Your task to perform on an android device: check android version Image 0: 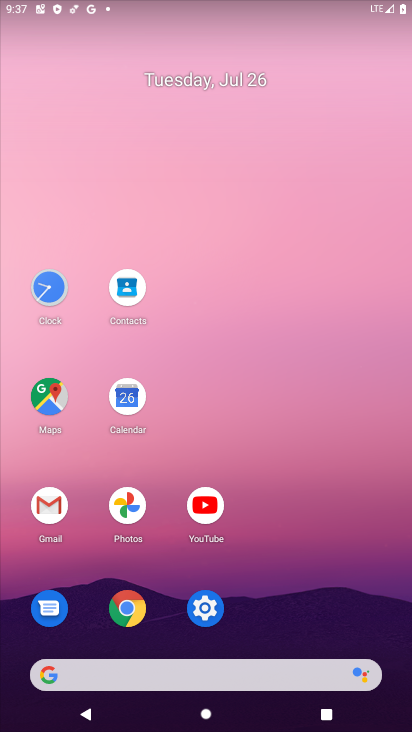
Step 0: click (204, 605)
Your task to perform on an android device: check android version Image 1: 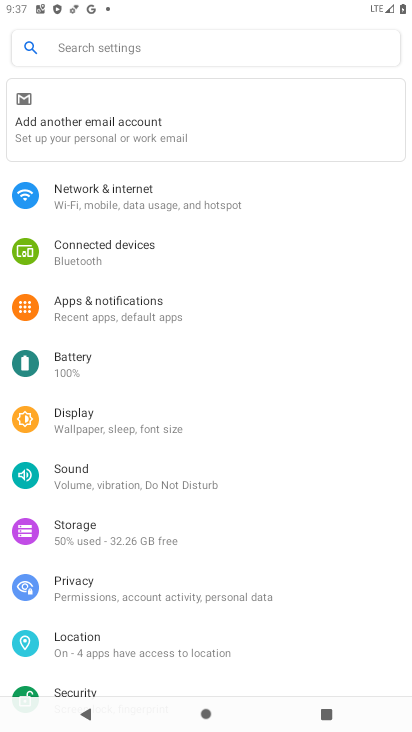
Step 1: drag from (270, 631) to (246, 1)
Your task to perform on an android device: check android version Image 2: 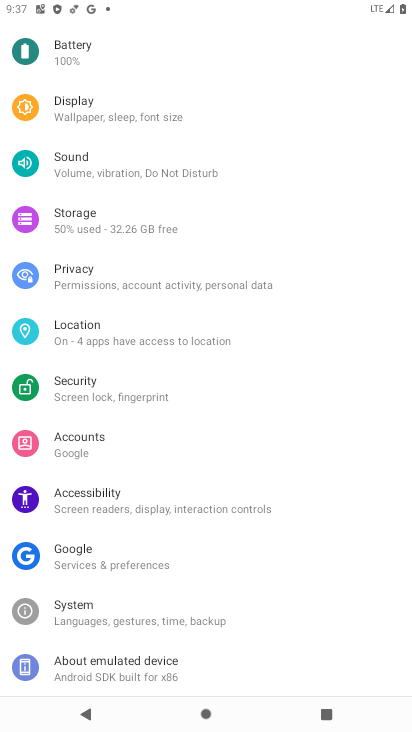
Step 2: click (126, 658)
Your task to perform on an android device: check android version Image 3: 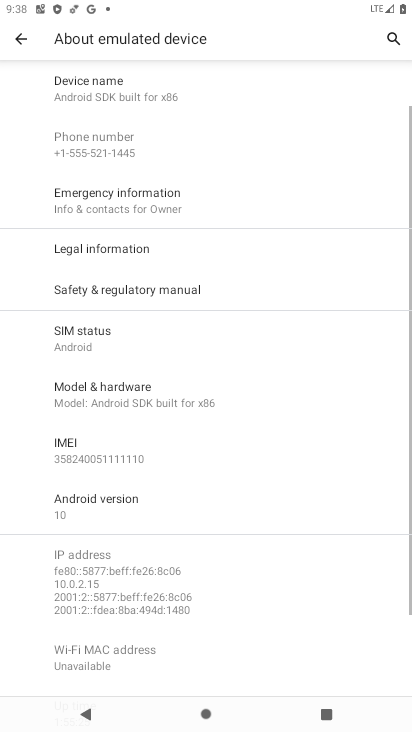
Step 3: task complete